Your task to perform on an android device: open app "DoorDash - Food Delivery" (install if not already installed) Image 0: 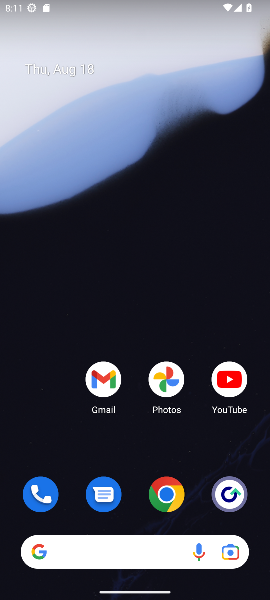
Step 0: drag from (197, 516) to (175, 140)
Your task to perform on an android device: open app "DoorDash - Food Delivery" (install if not already installed) Image 1: 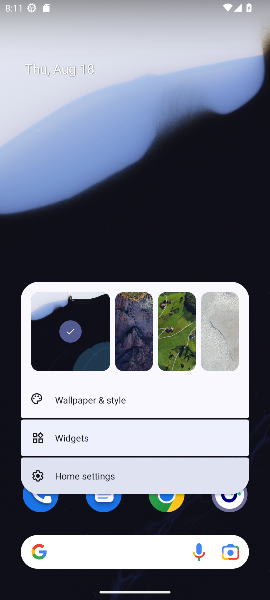
Step 1: click (191, 517)
Your task to perform on an android device: open app "DoorDash - Food Delivery" (install if not already installed) Image 2: 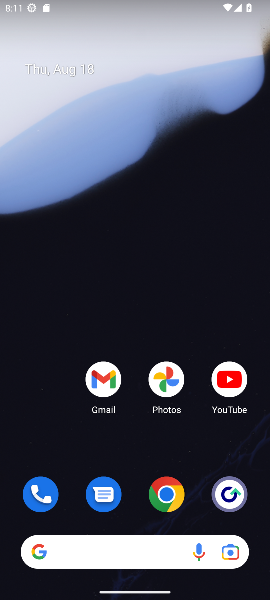
Step 2: drag from (193, 394) to (177, 90)
Your task to perform on an android device: open app "DoorDash - Food Delivery" (install if not already installed) Image 3: 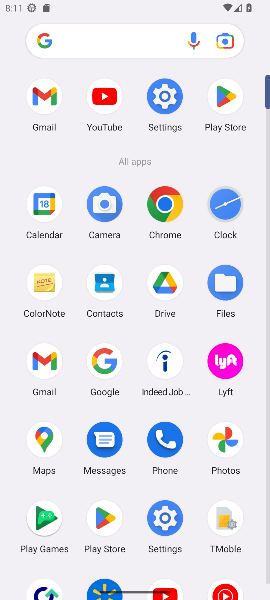
Step 3: drag from (194, 485) to (216, 195)
Your task to perform on an android device: open app "DoorDash - Food Delivery" (install if not already installed) Image 4: 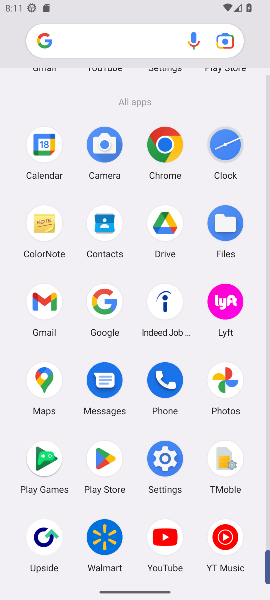
Step 4: click (104, 459)
Your task to perform on an android device: open app "DoorDash - Food Delivery" (install if not already installed) Image 5: 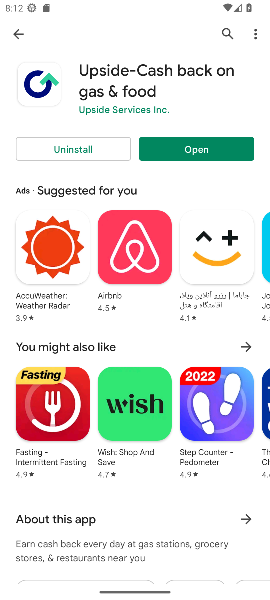
Step 5: click (225, 33)
Your task to perform on an android device: open app "DoorDash - Food Delivery" (install if not already installed) Image 6: 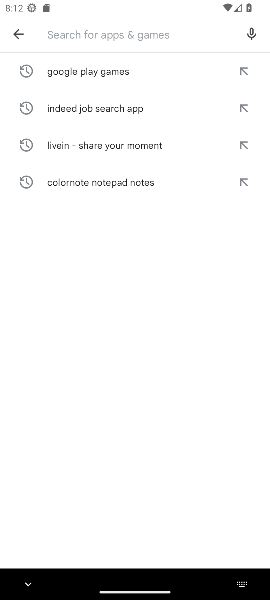
Step 6: type "DoorDash - Food Delivery"
Your task to perform on an android device: open app "DoorDash - Food Delivery" (install if not already installed) Image 7: 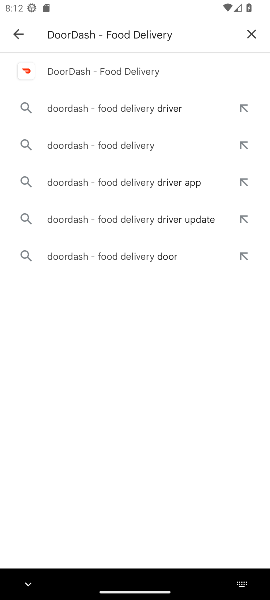
Step 7: click (87, 73)
Your task to perform on an android device: open app "DoorDash - Food Delivery" (install if not already installed) Image 8: 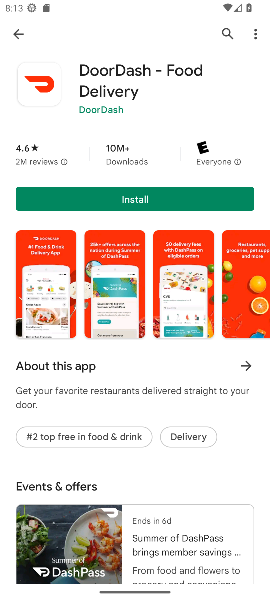
Step 8: click (133, 202)
Your task to perform on an android device: open app "DoorDash - Food Delivery" (install if not already installed) Image 9: 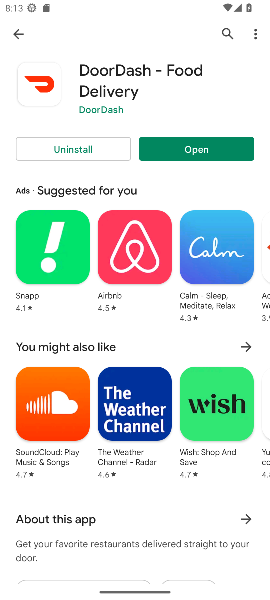
Step 9: click (192, 151)
Your task to perform on an android device: open app "DoorDash - Food Delivery" (install if not already installed) Image 10: 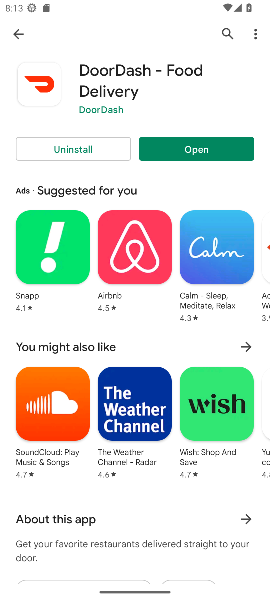
Step 10: click (192, 151)
Your task to perform on an android device: open app "DoorDash - Food Delivery" (install if not already installed) Image 11: 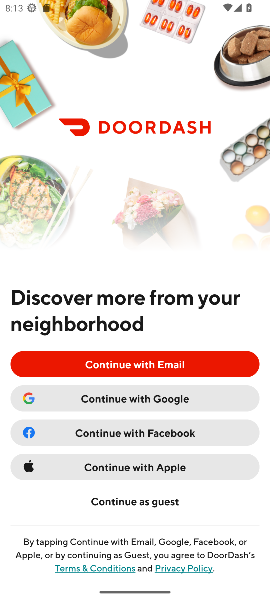
Step 11: task complete